Your task to perform on an android device: Is it going to rain today? Image 0: 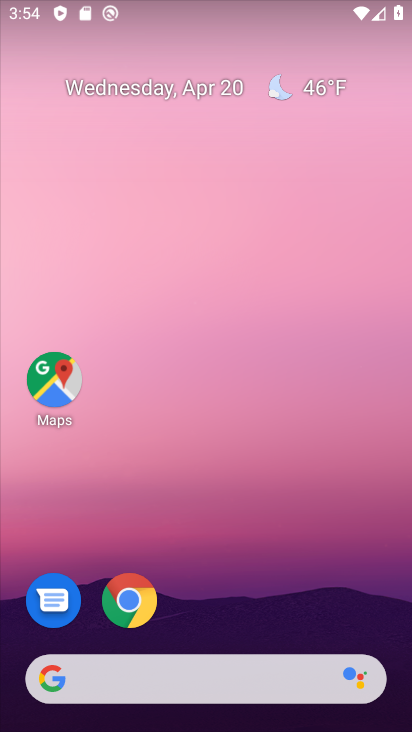
Step 0: click (287, 92)
Your task to perform on an android device: Is it going to rain today? Image 1: 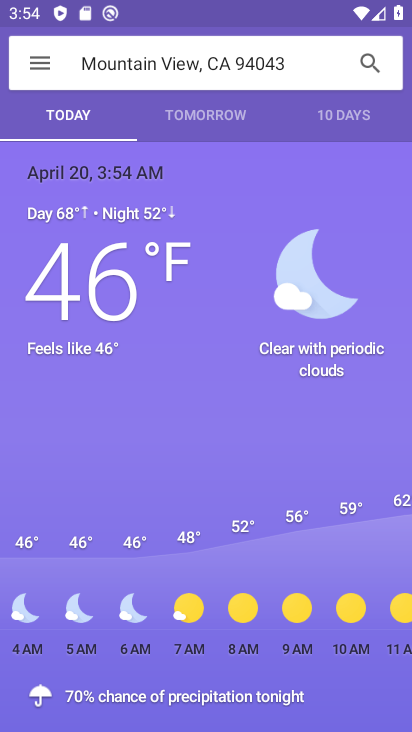
Step 1: task complete